Your task to perform on an android device: toggle show notifications on the lock screen Image 0: 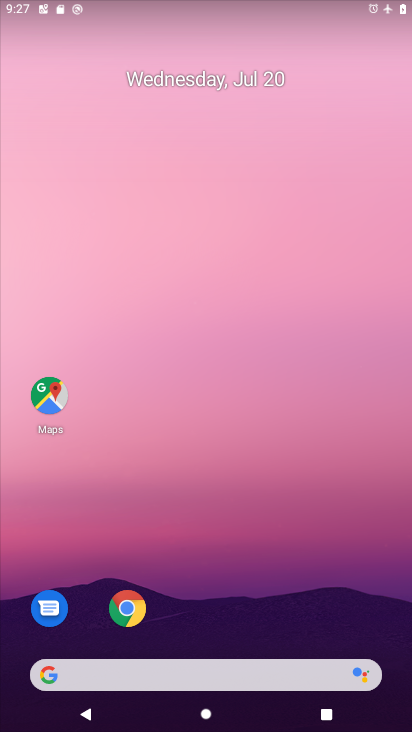
Step 0: drag from (219, 623) to (249, 305)
Your task to perform on an android device: toggle show notifications on the lock screen Image 1: 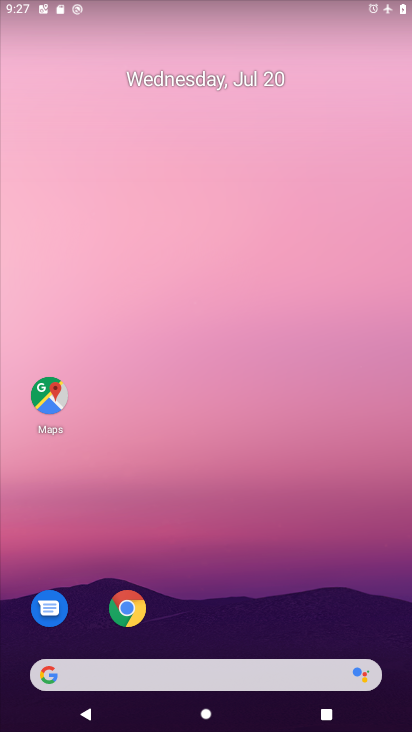
Step 1: drag from (255, 608) to (248, 340)
Your task to perform on an android device: toggle show notifications on the lock screen Image 2: 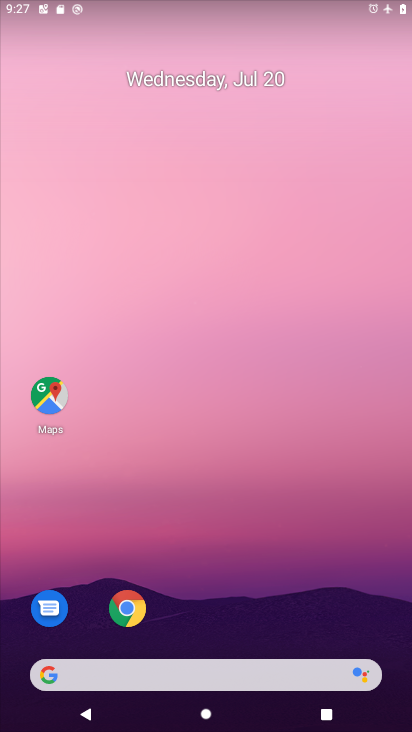
Step 2: drag from (209, 672) to (217, 327)
Your task to perform on an android device: toggle show notifications on the lock screen Image 3: 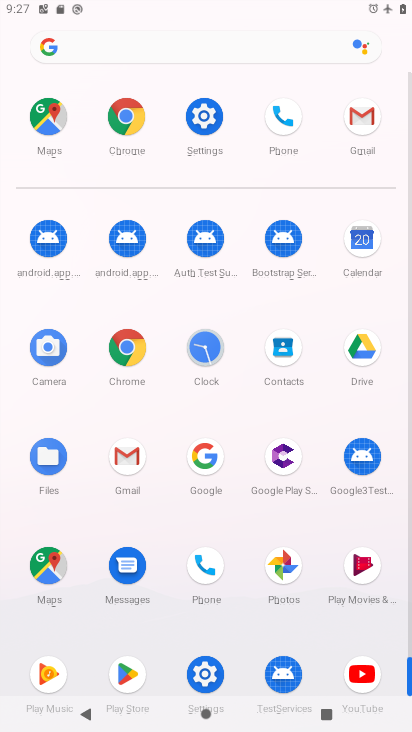
Step 3: click (195, 110)
Your task to perform on an android device: toggle show notifications on the lock screen Image 4: 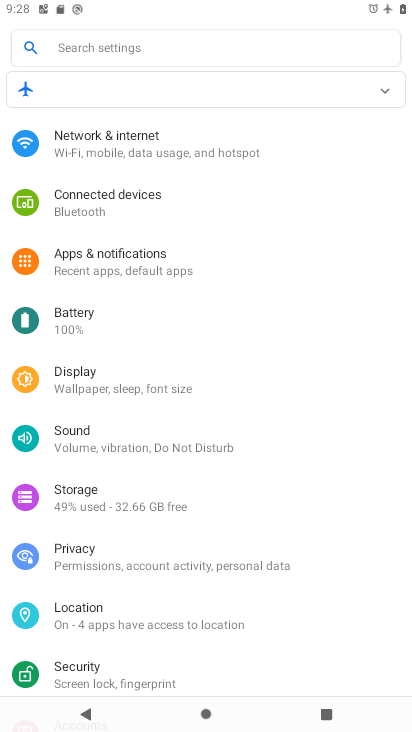
Step 4: click (133, 138)
Your task to perform on an android device: toggle show notifications on the lock screen Image 5: 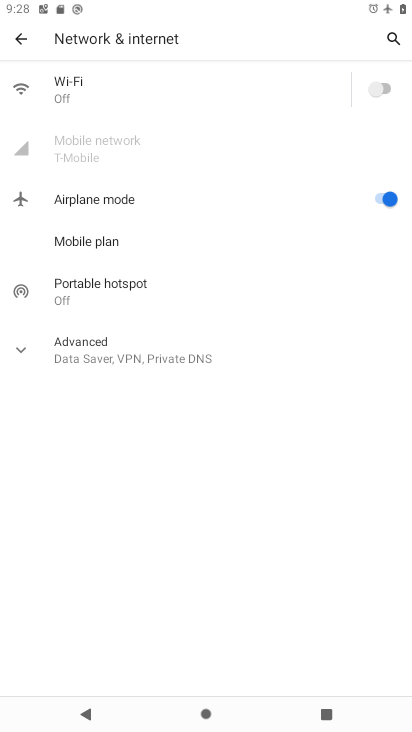
Step 5: click (26, 46)
Your task to perform on an android device: toggle show notifications on the lock screen Image 6: 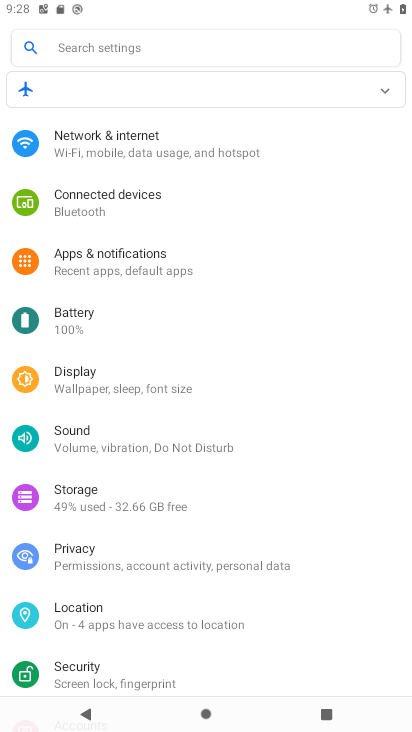
Step 6: click (119, 244)
Your task to perform on an android device: toggle show notifications on the lock screen Image 7: 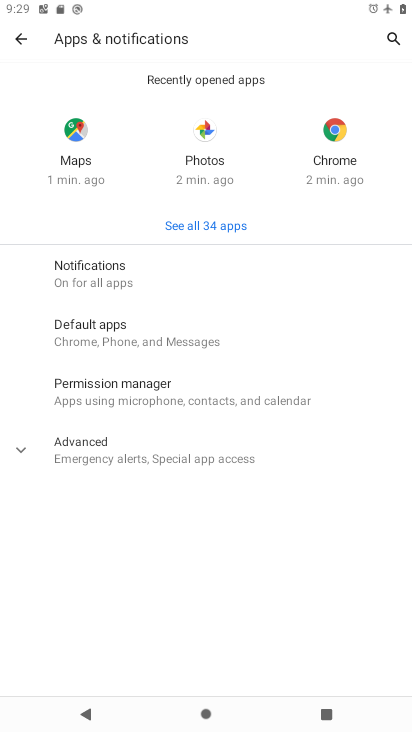
Step 7: click (161, 268)
Your task to perform on an android device: toggle show notifications on the lock screen Image 8: 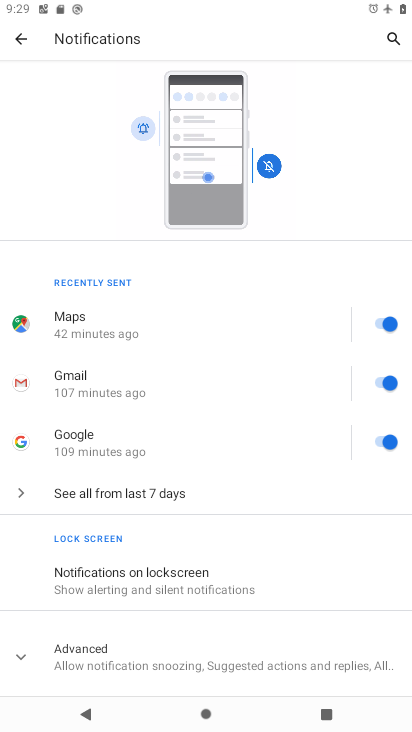
Step 8: click (209, 575)
Your task to perform on an android device: toggle show notifications on the lock screen Image 9: 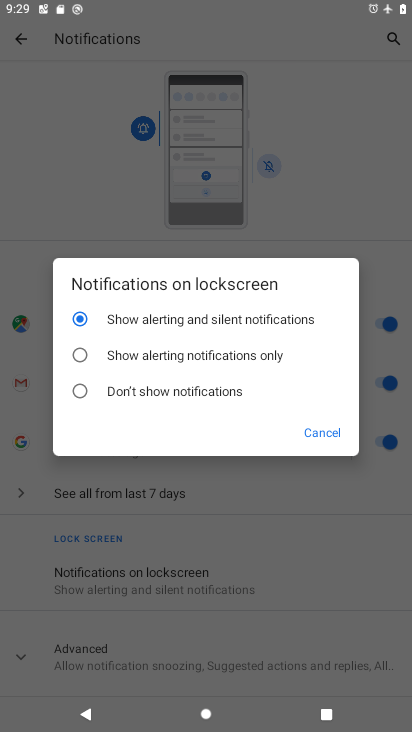
Step 9: click (141, 396)
Your task to perform on an android device: toggle show notifications on the lock screen Image 10: 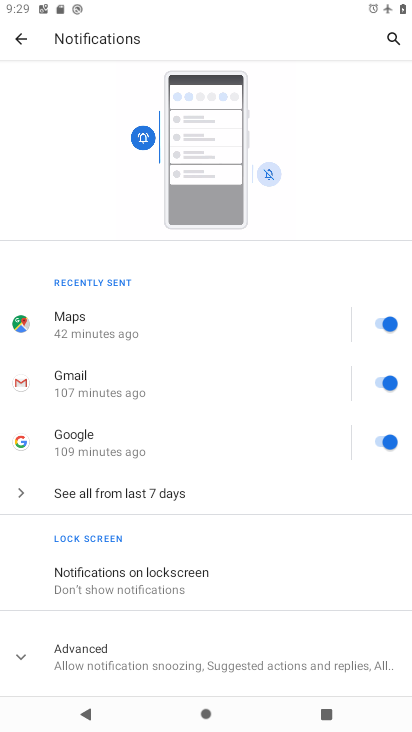
Step 10: task complete